Your task to perform on an android device: turn notification dots off Image 0: 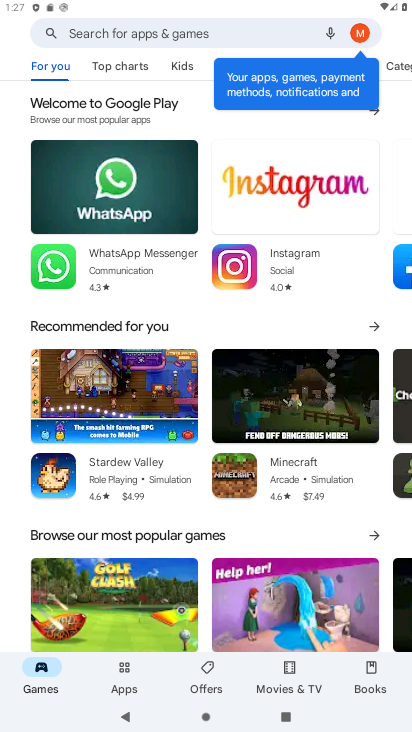
Step 0: press home button
Your task to perform on an android device: turn notification dots off Image 1: 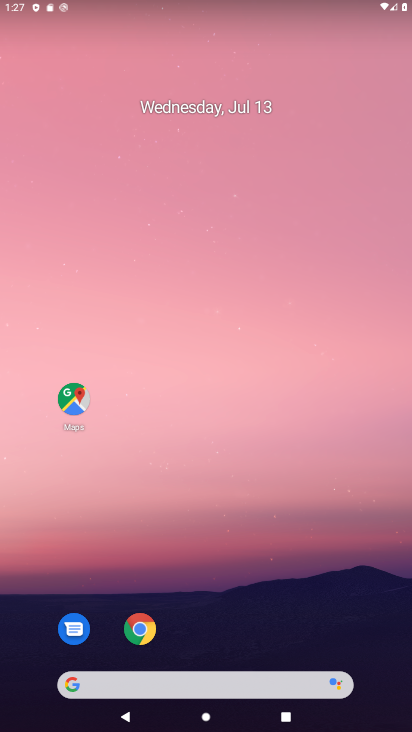
Step 1: drag from (323, 640) to (285, 97)
Your task to perform on an android device: turn notification dots off Image 2: 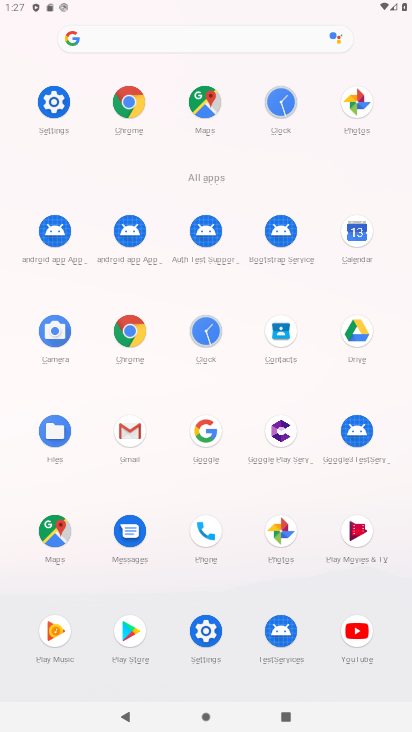
Step 2: click (66, 122)
Your task to perform on an android device: turn notification dots off Image 3: 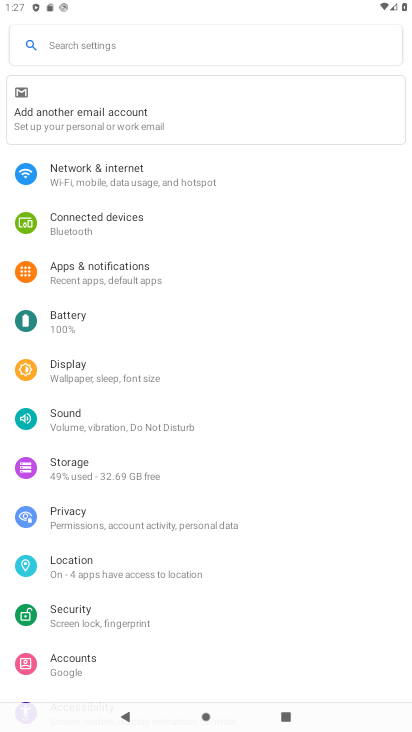
Step 3: drag from (262, 585) to (291, 375)
Your task to perform on an android device: turn notification dots off Image 4: 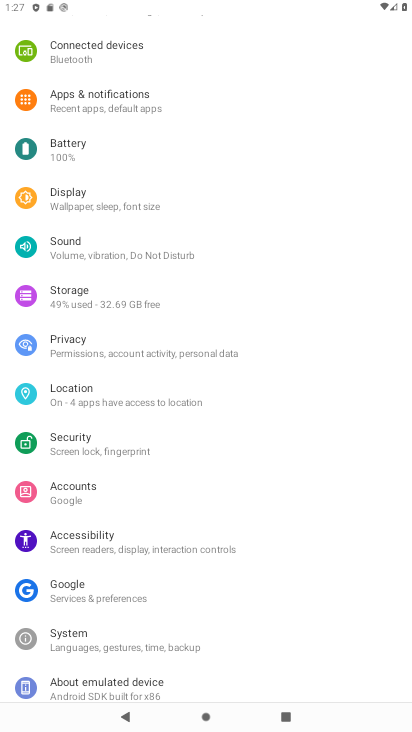
Step 4: click (180, 550)
Your task to perform on an android device: turn notification dots off Image 5: 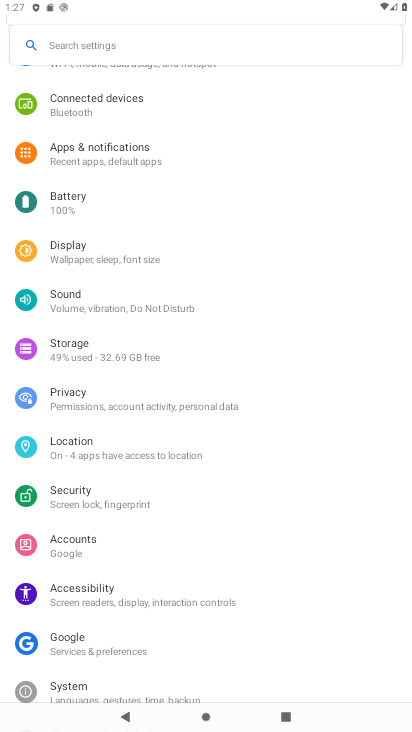
Step 5: click (152, 459)
Your task to perform on an android device: turn notification dots off Image 6: 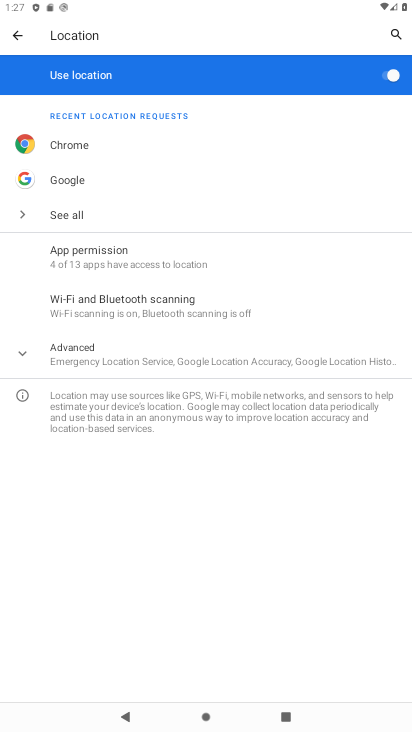
Step 6: click (96, 346)
Your task to perform on an android device: turn notification dots off Image 7: 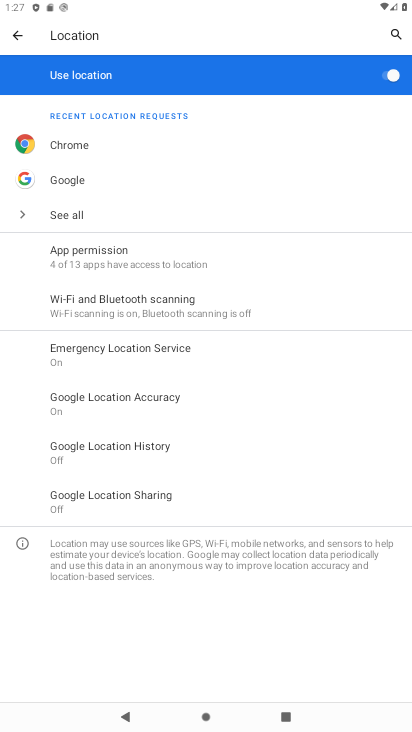
Step 7: click (22, 43)
Your task to perform on an android device: turn notification dots off Image 8: 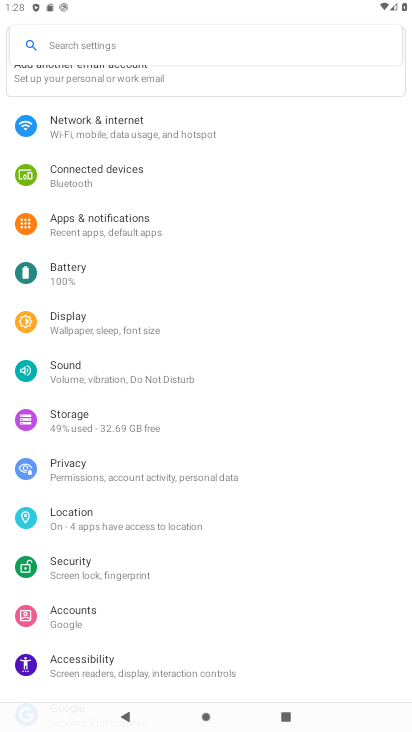
Step 8: click (184, 228)
Your task to perform on an android device: turn notification dots off Image 9: 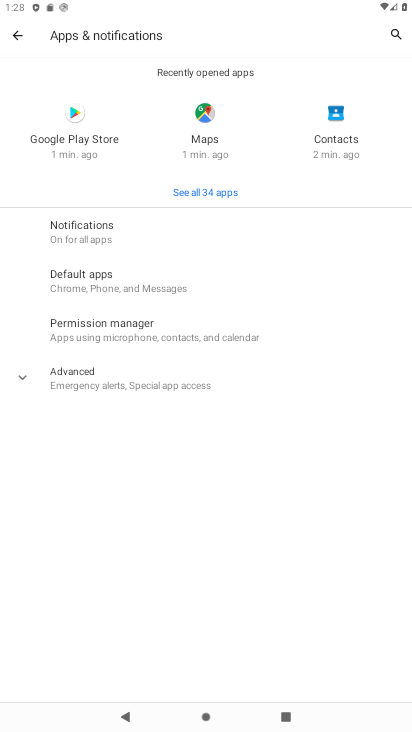
Step 9: click (201, 372)
Your task to perform on an android device: turn notification dots off Image 10: 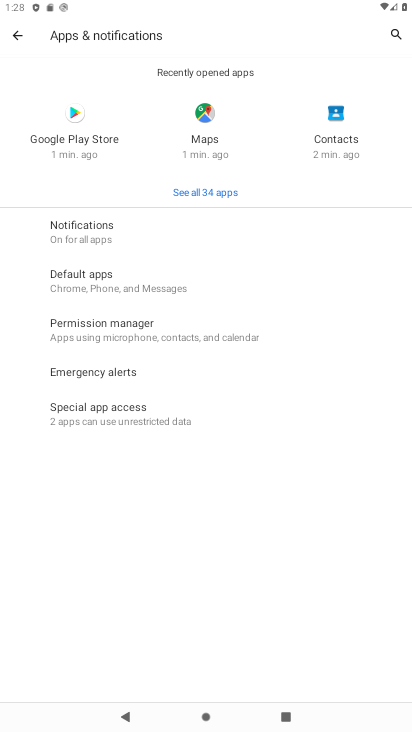
Step 10: click (163, 238)
Your task to perform on an android device: turn notification dots off Image 11: 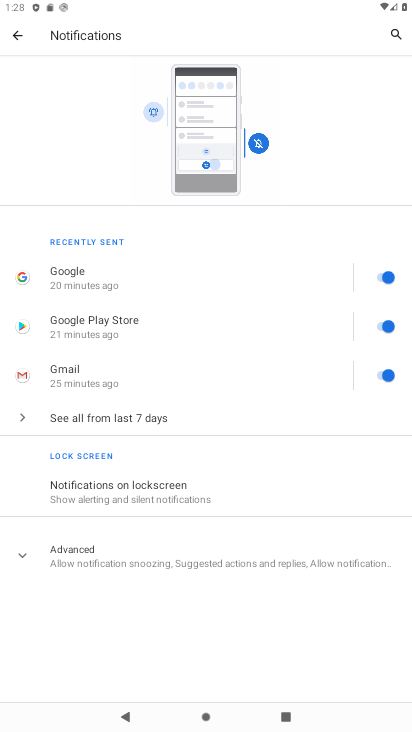
Step 11: click (185, 426)
Your task to perform on an android device: turn notification dots off Image 12: 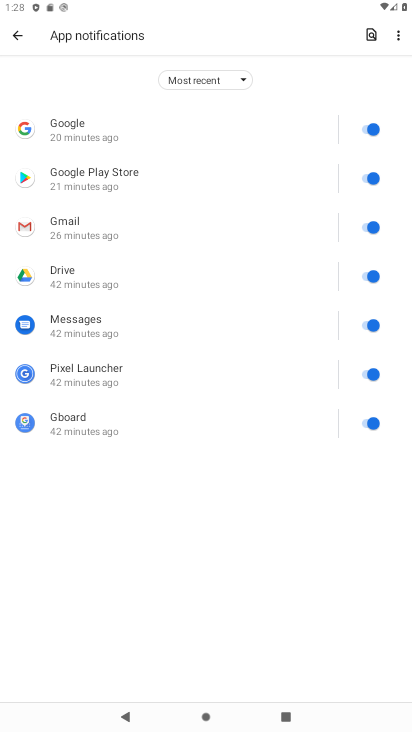
Step 12: click (10, 45)
Your task to perform on an android device: turn notification dots off Image 13: 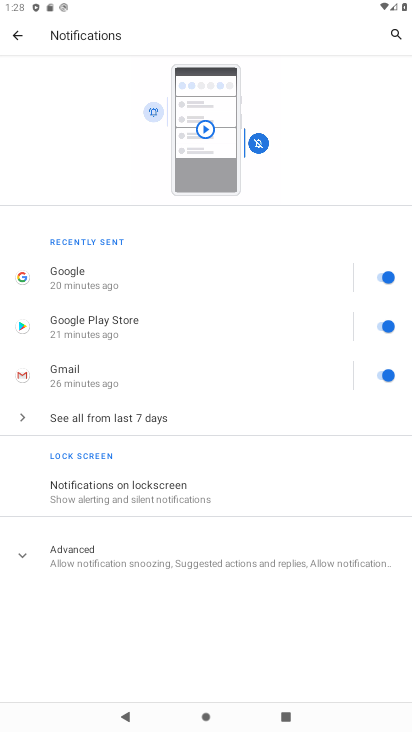
Step 13: click (97, 539)
Your task to perform on an android device: turn notification dots off Image 14: 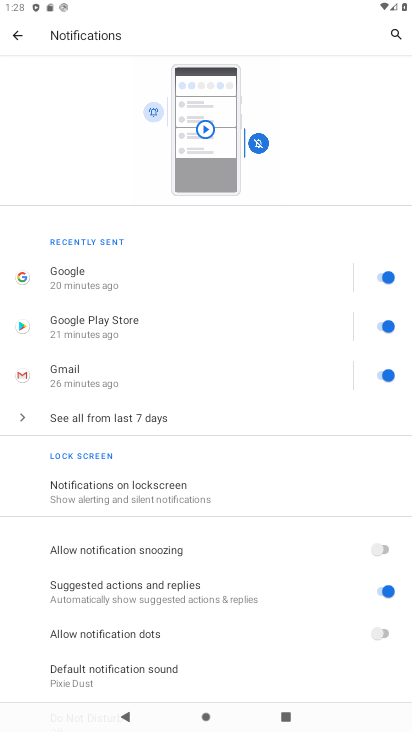
Step 14: click (357, 615)
Your task to perform on an android device: turn notification dots off Image 15: 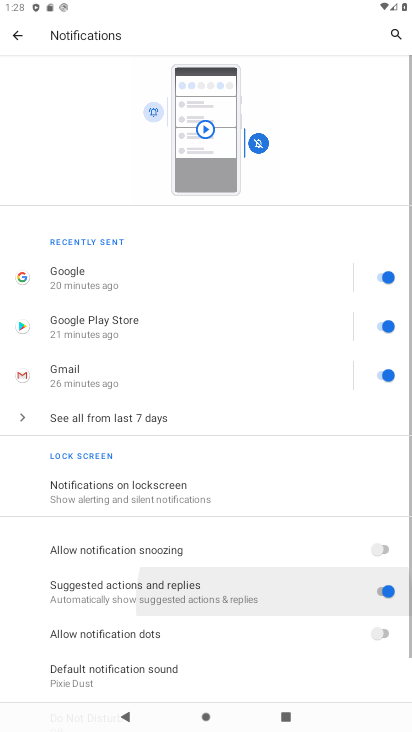
Step 15: click (357, 615)
Your task to perform on an android device: turn notification dots off Image 16: 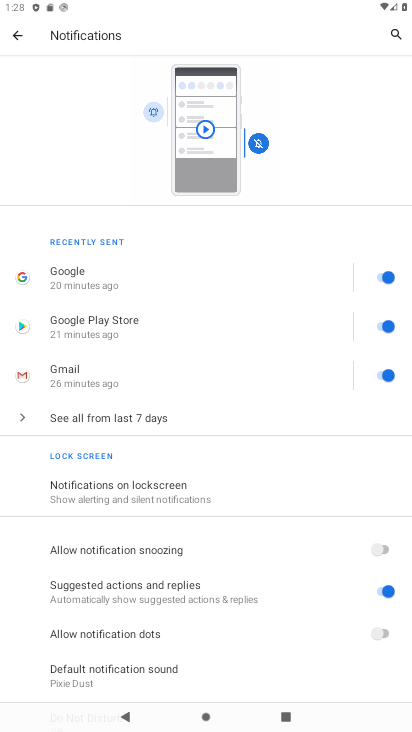
Step 16: click (358, 634)
Your task to perform on an android device: turn notification dots off Image 17: 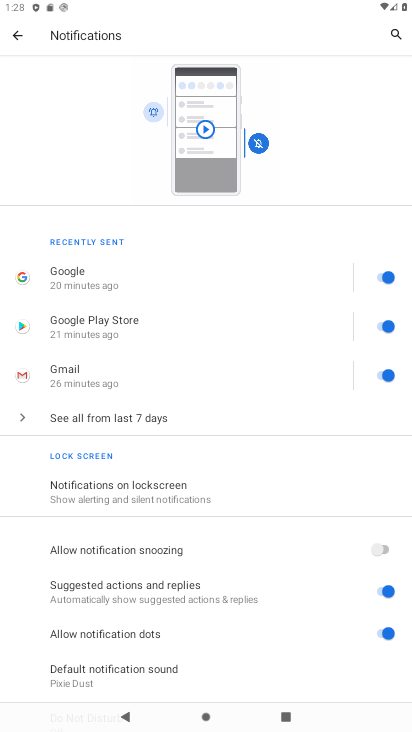
Step 17: task complete